Your task to perform on an android device: toggle javascript in the chrome app Image 0: 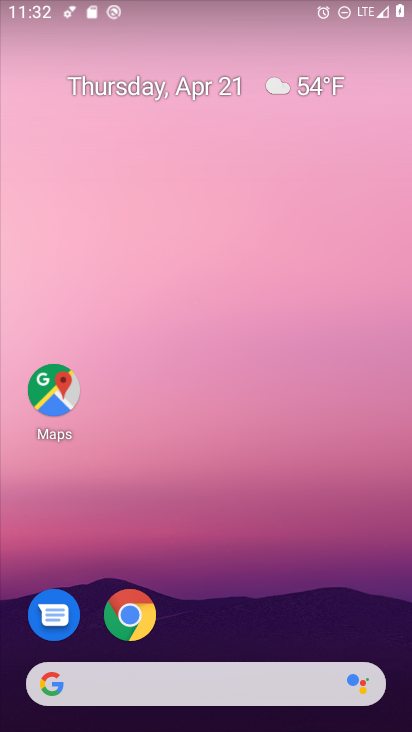
Step 0: click (140, 609)
Your task to perform on an android device: toggle javascript in the chrome app Image 1: 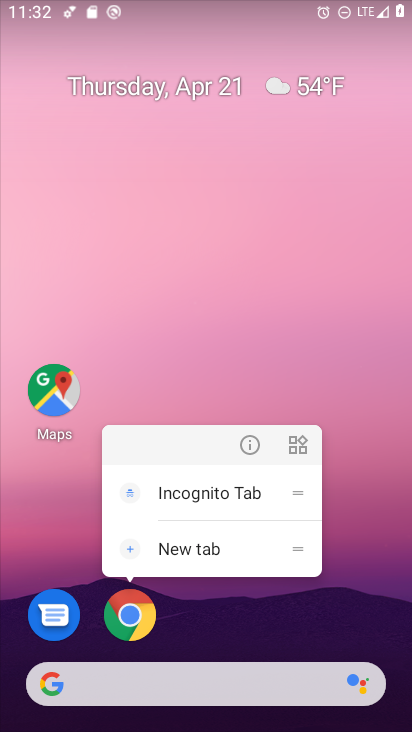
Step 1: click (140, 609)
Your task to perform on an android device: toggle javascript in the chrome app Image 2: 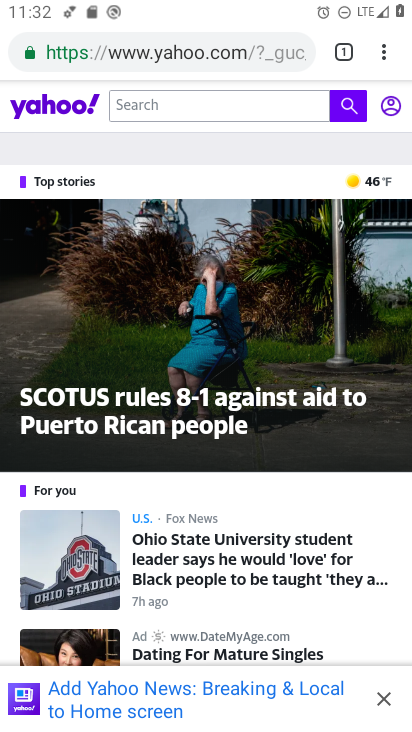
Step 2: click (386, 51)
Your task to perform on an android device: toggle javascript in the chrome app Image 3: 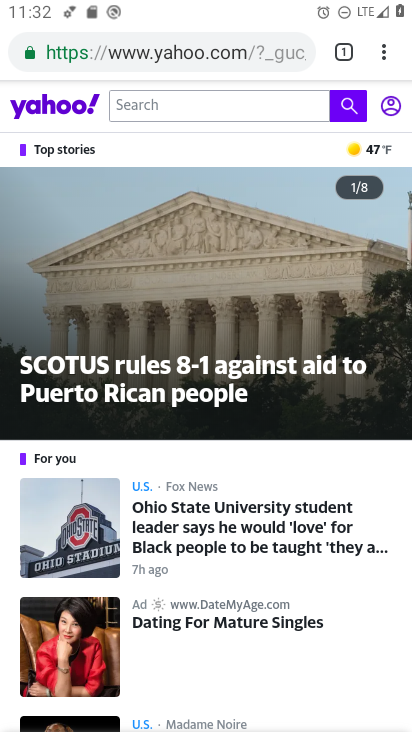
Step 3: click (382, 52)
Your task to perform on an android device: toggle javascript in the chrome app Image 4: 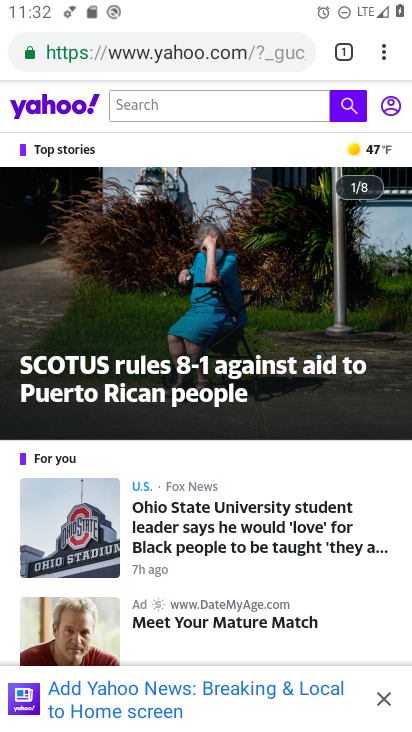
Step 4: click (380, 51)
Your task to perform on an android device: toggle javascript in the chrome app Image 5: 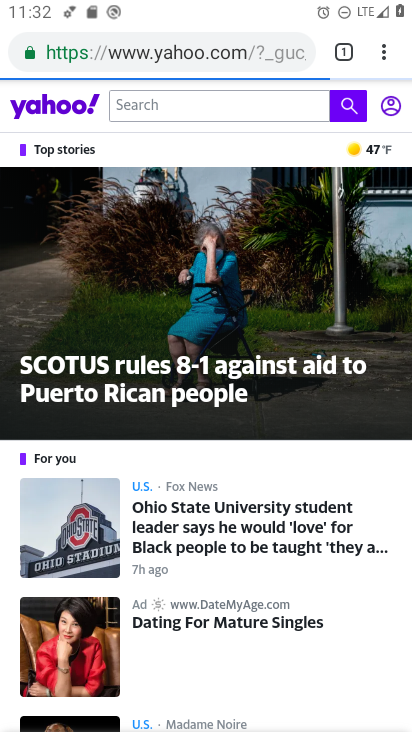
Step 5: click (380, 51)
Your task to perform on an android device: toggle javascript in the chrome app Image 6: 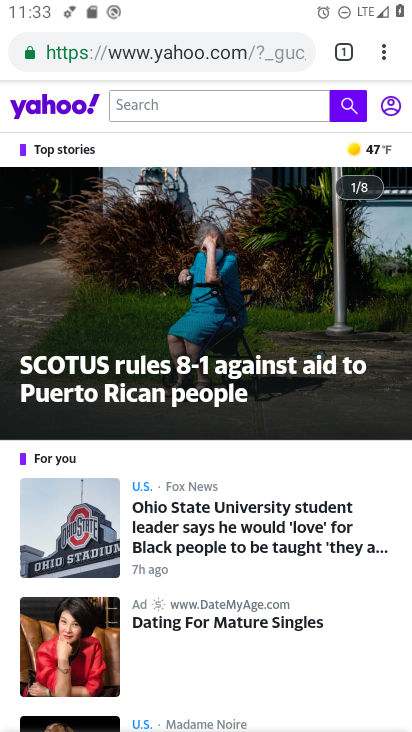
Step 6: click (380, 51)
Your task to perform on an android device: toggle javascript in the chrome app Image 7: 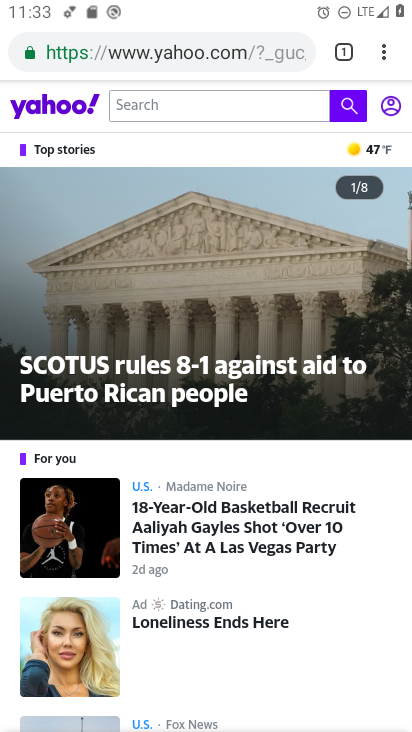
Step 7: click (380, 51)
Your task to perform on an android device: toggle javascript in the chrome app Image 8: 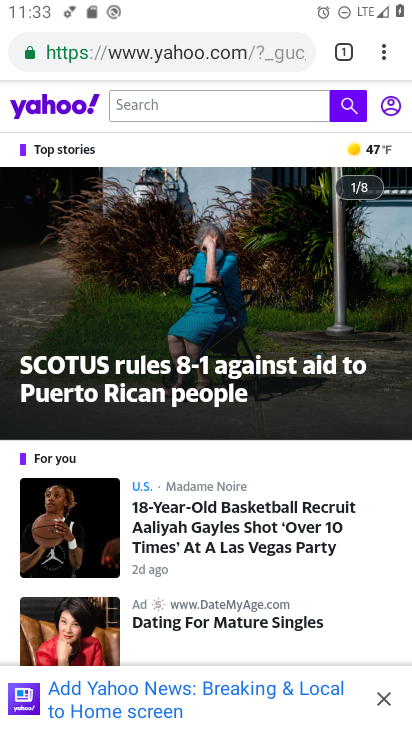
Step 8: click (384, 48)
Your task to perform on an android device: toggle javascript in the chrome app Image 9: 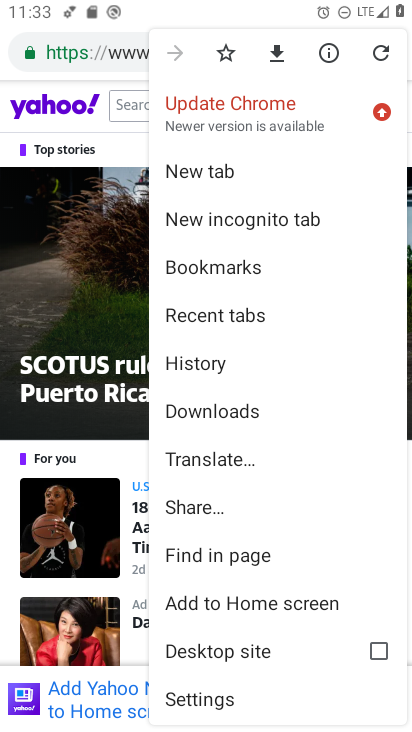
Step 9: click (249, 702)
Your task to perform on an android device: toggle javascript in the chrome app Image 10: 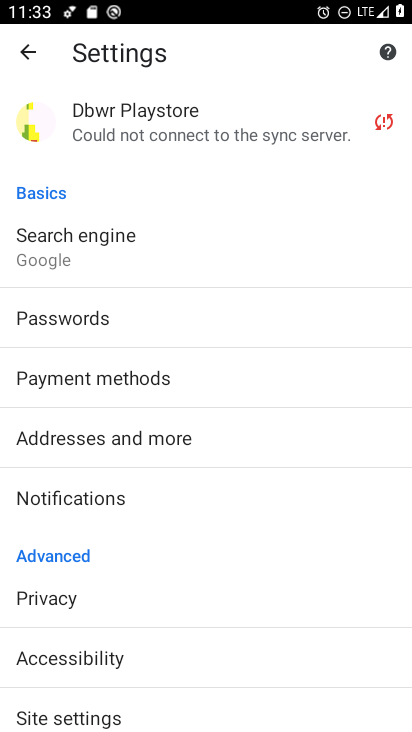
Step 10: click (162, 714)
Your task to perform on an android device: toggle javascript in the chrome app Image 11: 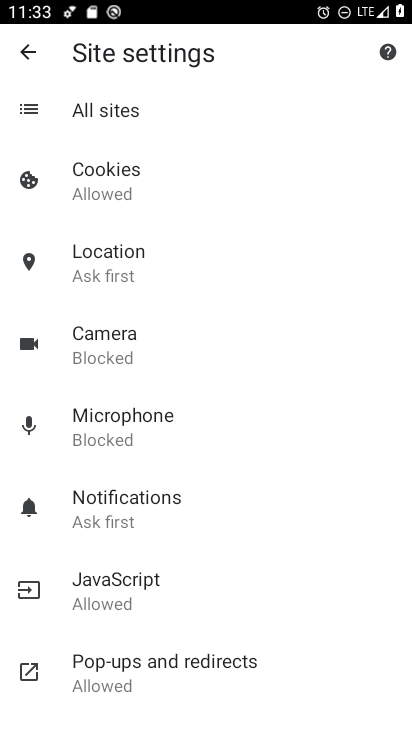
Step 11: click (179, 577)
Your task to perform on an android device: toggle javascript in the chrome app Image 12: 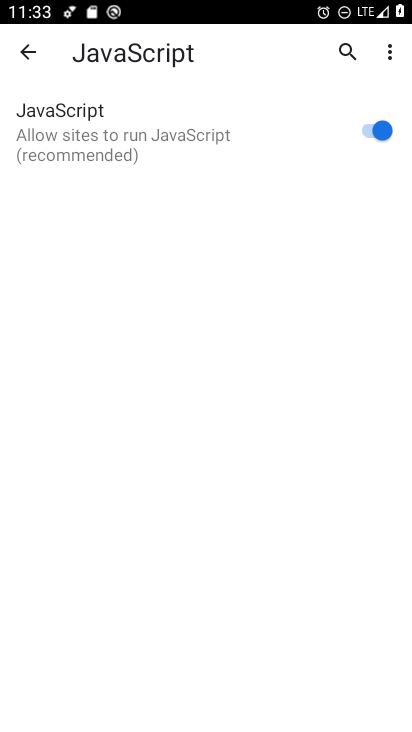
Step 12: click (368, 125)
Your task to perform on an android device: toggle javascript in the chrome app Image 13: 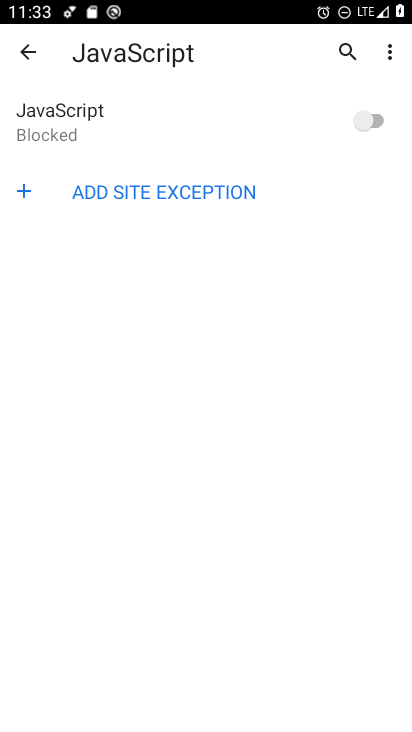
Step 13: task complete